Your task to perform on an android device: Go to battery settings Image 0: 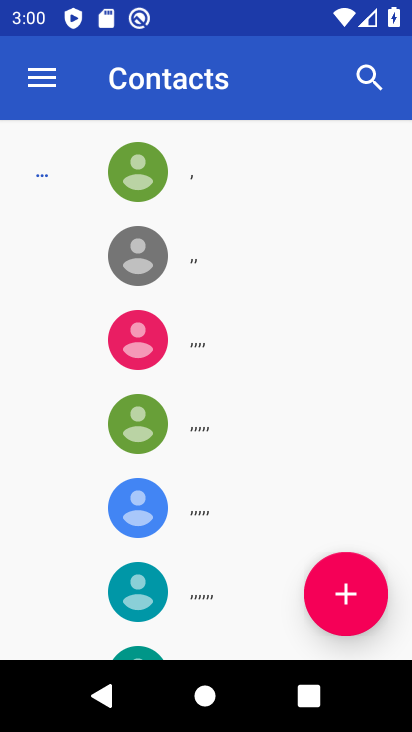
Step 0: press home button
Your task to perform on an android device: Go to battery settings Image 1: 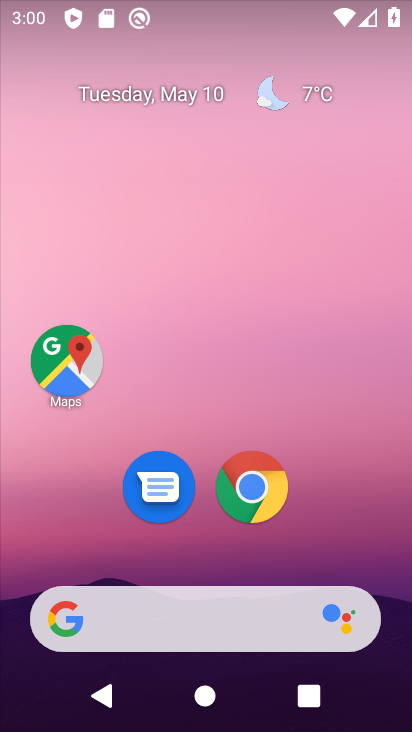
Step 1: drag from (382, 516) to (373, 182)
Your task to perform on an android device: Go to battery settings Image 2: 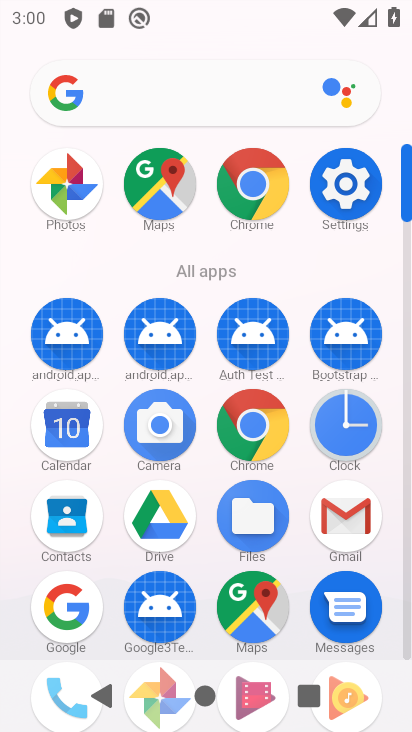
Step 2: click (354, 177)
Your task to perform on an android device: Go to battery settings Image 3: 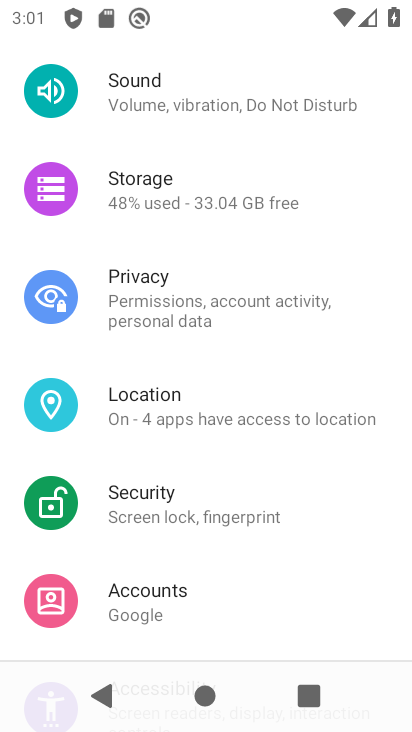
Step 3: drag from (283, 183) to (250, 594)
Your task to perform on an android device: Go to battery settings Image 4: 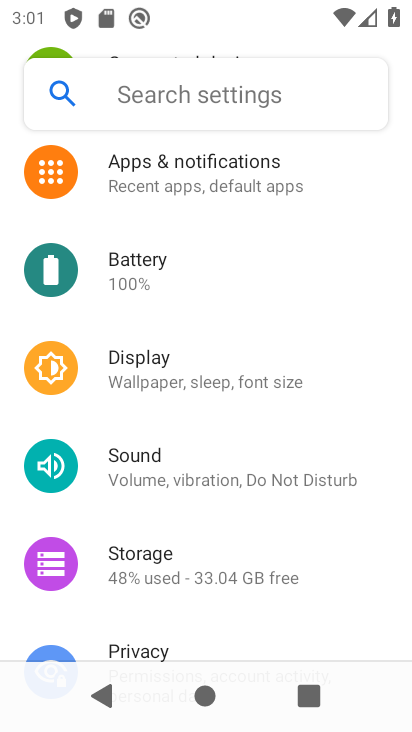
Step 4: click (157, 257)
Your task to perform on an android device: Go to battery settings Image 5: 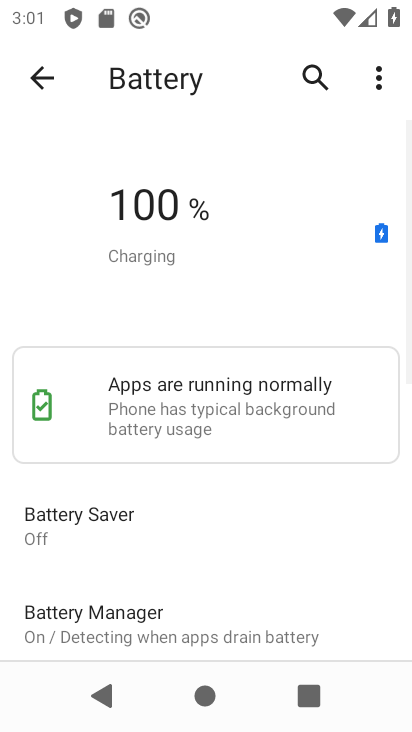
Step 5: task complete